Your task to perform on an android device: Go to battery settings Image 0: 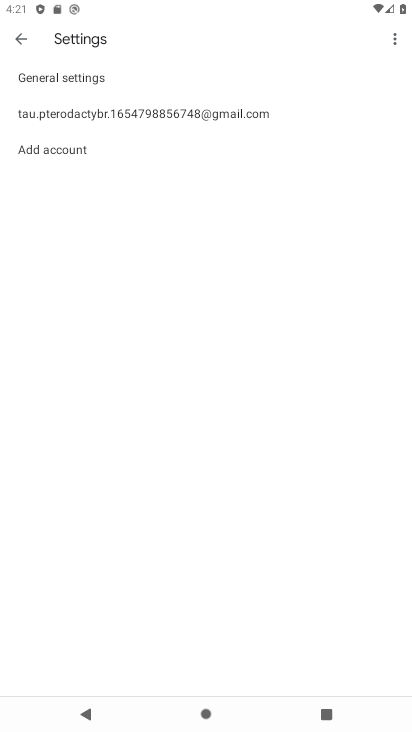
Step 0: drag from (162, 0) to (176, 451)
Your task to perform on an android device: Go to battery settings Image 1: 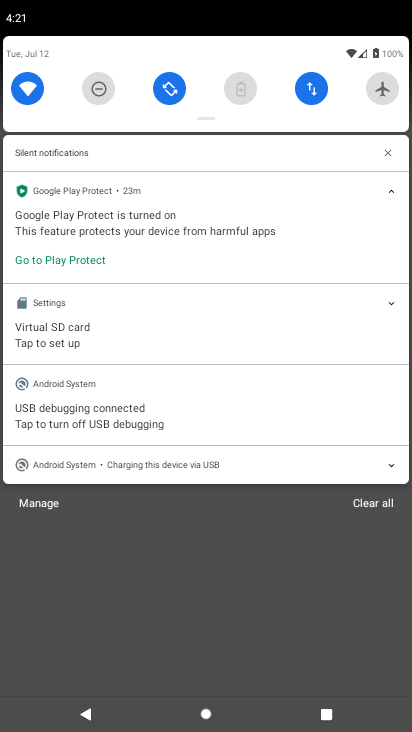
Step 1: click (243, 100)
Your task to perform on an android device: Go to battery settings Image 2: 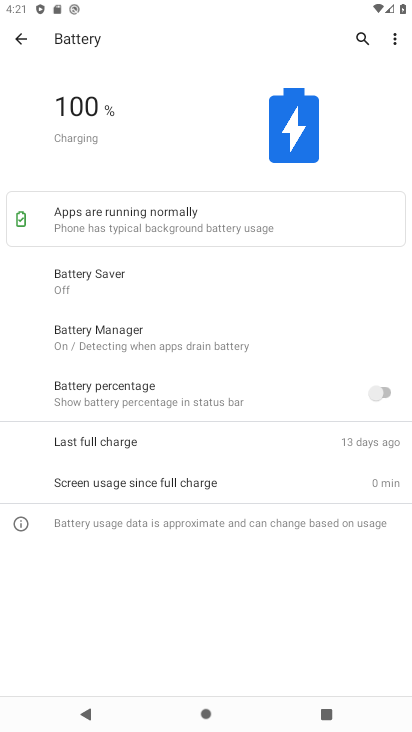
Step 2: task complete